Your task to perform on an android device: Go to internet settings Image 0: 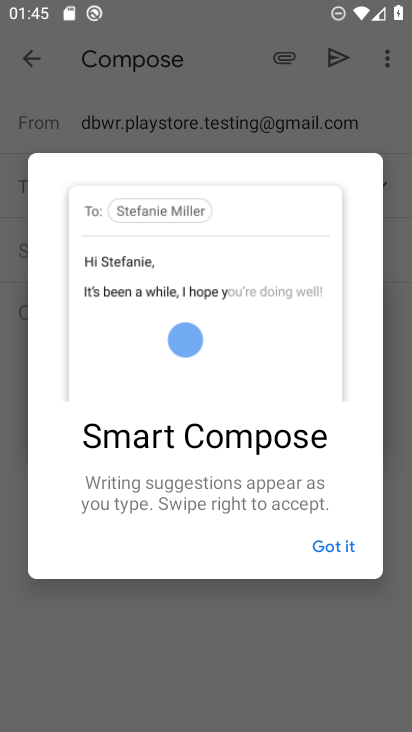
Step 0: press home button
Your task to perform on an android device: Go to internet settings Image 1: 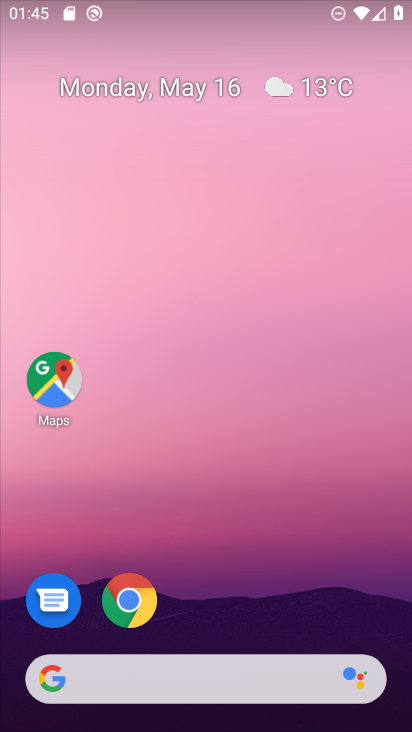
Step 1: drag from (218, 638) to (215, 60)
Your task to perform on an android device: Go to internet settings Image 2: 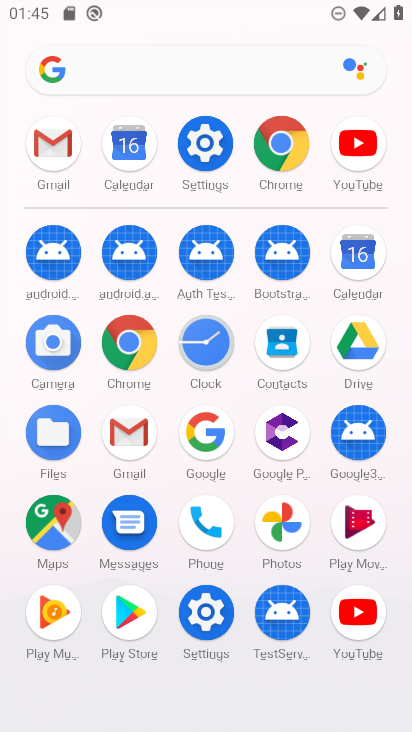
Step 2: click (202, 139)
Your task to perform on an android device: Go to internet settings Image 3: 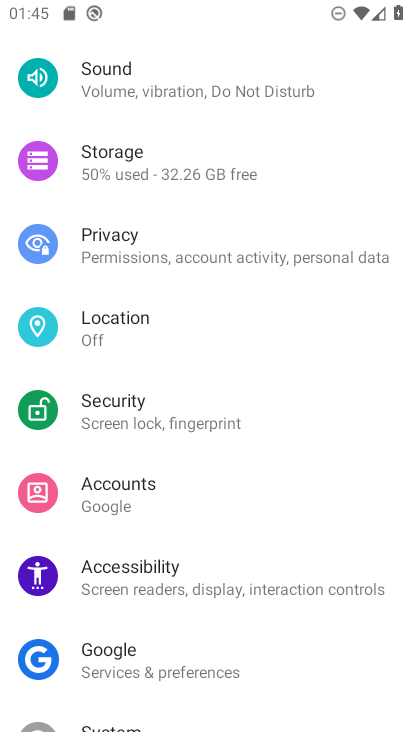
Step 3: drag from (168, 124) to (155, 705)
Your task to perform on an android device: Go to internet settings Image 4: 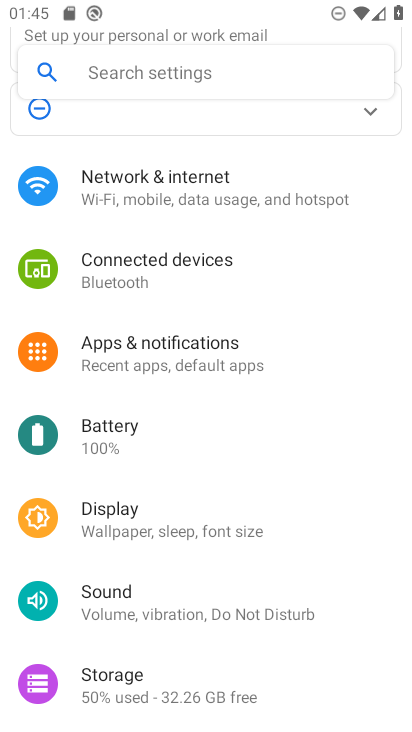
Step 4: click (199, 184)
Your task to perform on an android device: Go to internet settings Image 5: 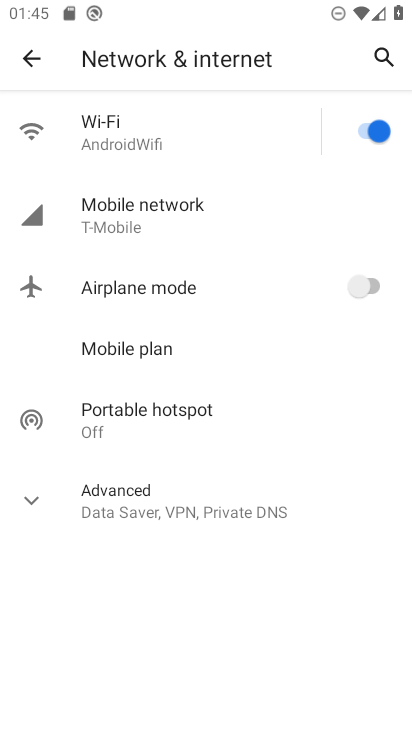
Step 5: click (32, 494)
Your task to perform on an android device: Go to internet settings Image 6: 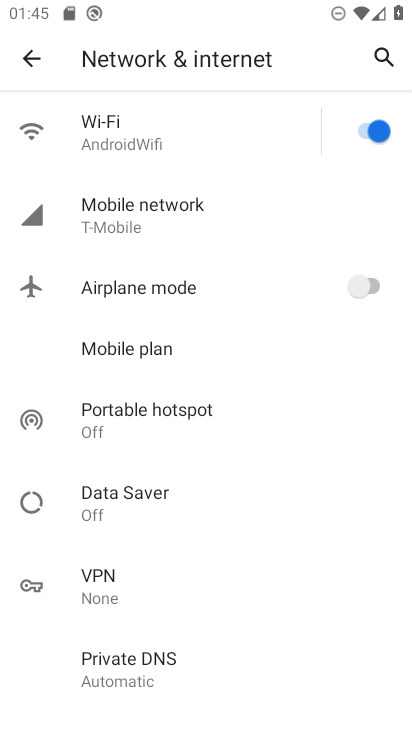
Step 6: task complete